Your task to perform on an android device: Open calendar and show me the third week of next month Image 0: 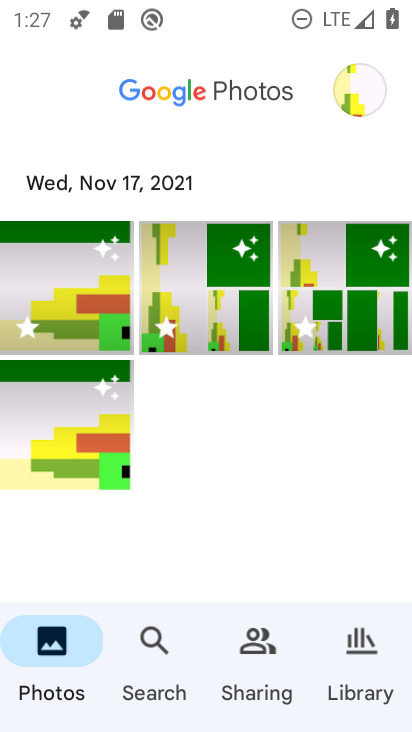
Step 0: press home button
Your task to perform on an android device: Open calendar and show me the third week of next month Image 1: 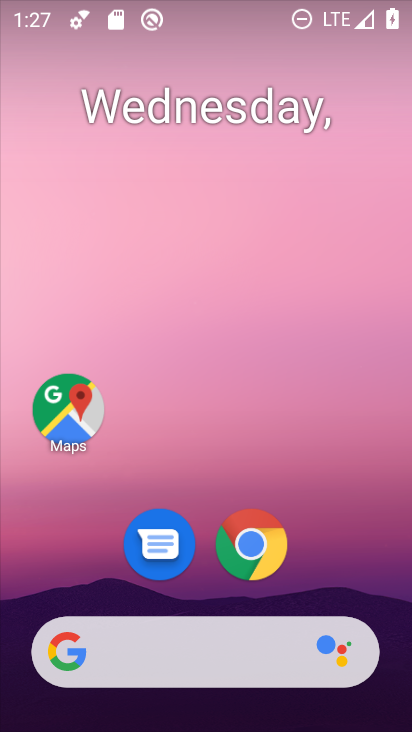
Step 1: drag from (342, 586) to (269, 42)
Your task to perform on an android device: Open calendar and show me the third week of next month Image 2: 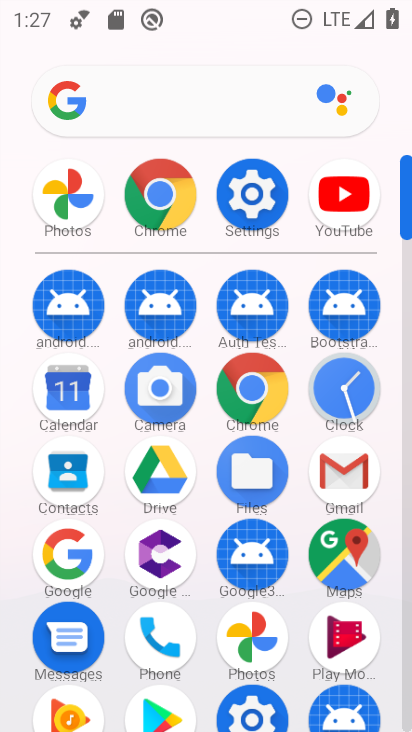
Step 2: click (67, 392)
Your task to perform on an android device: Open calendar and show me the third week of next month Image 3: 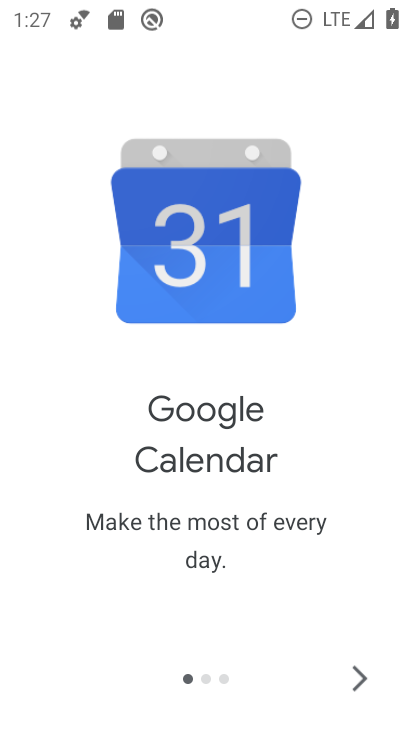
Step 3: click (354, 687)
Your task to perform on an android device: Open calendar and show me the third week of next month Image 4: 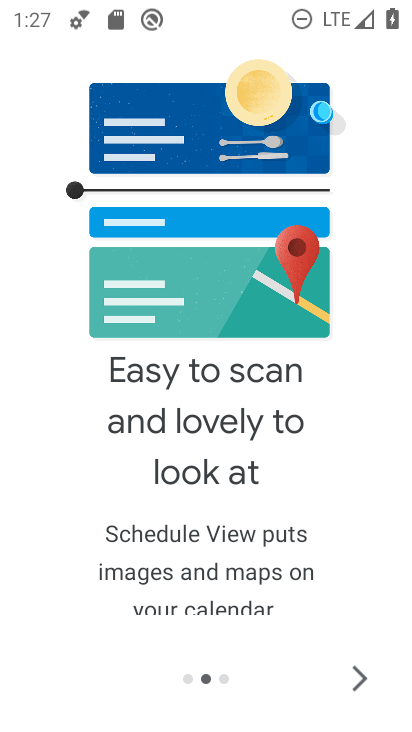
Step 4: click (354, 687)
Your task to perform on an android device: Open calendar and show me the third week of next month Image 5: 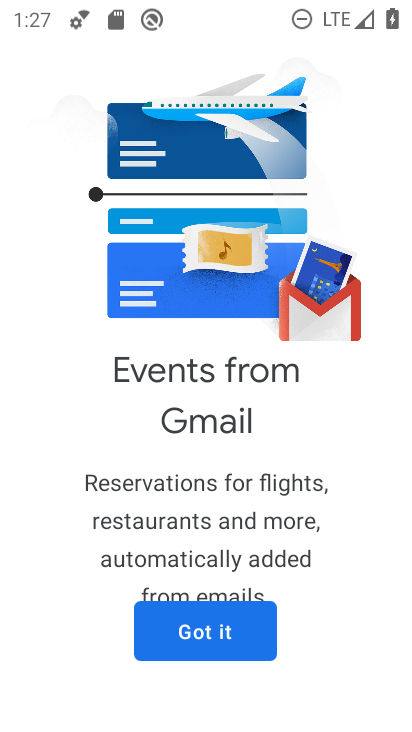
Step 5: click (228, 615)
Your task to perform on an android device: Open calendar and show me the third week of next month Image 6: 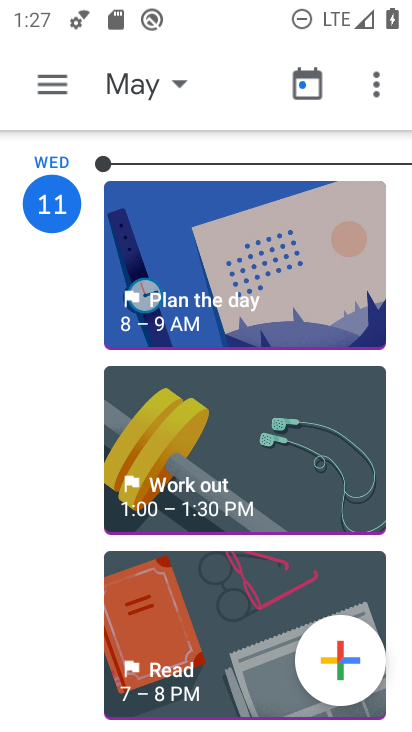
Step 6: click (135, 74)
Your task to perform on an android device: Open calendar and show me the third week of next month Image 7: 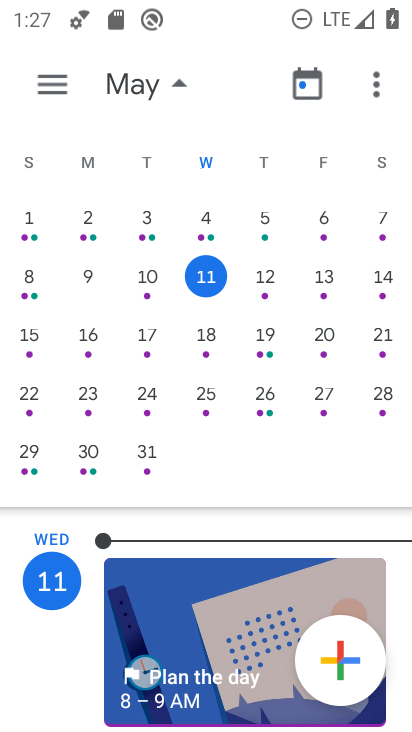
Step 7: drag from (335, 404) to (5, 403)
Your task to perform on an android device: Open calendar and show me the third week of next month Image 8: 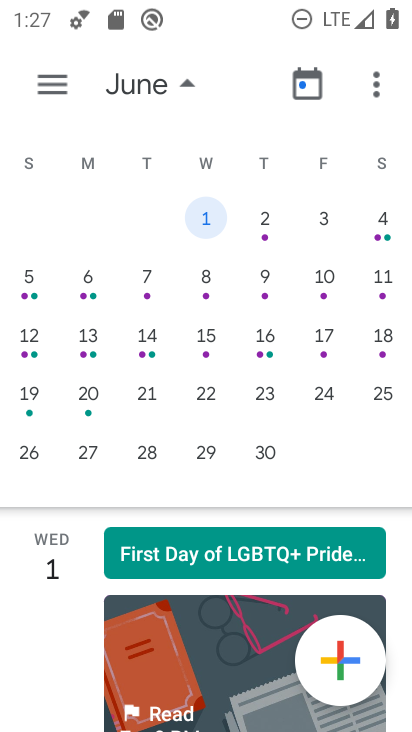
Step 8: click (65, 309)
Your task to perform on an android device: Open calendar and show me the third week of next month Image 9: 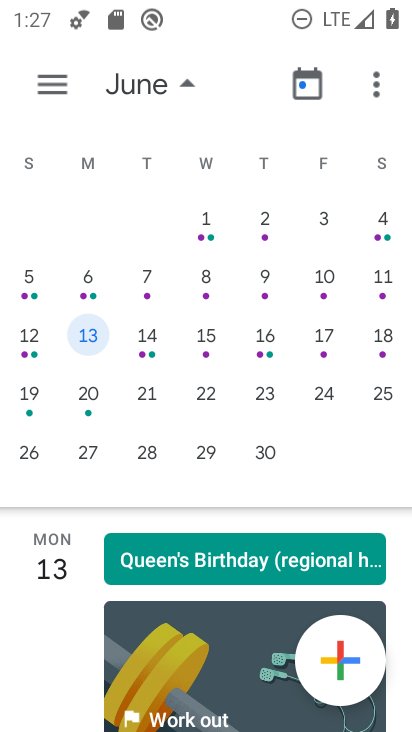
Step 9: click (25, 346)
Your task to perform on an android device: Open calendar and show me the third week of next month Image 10: 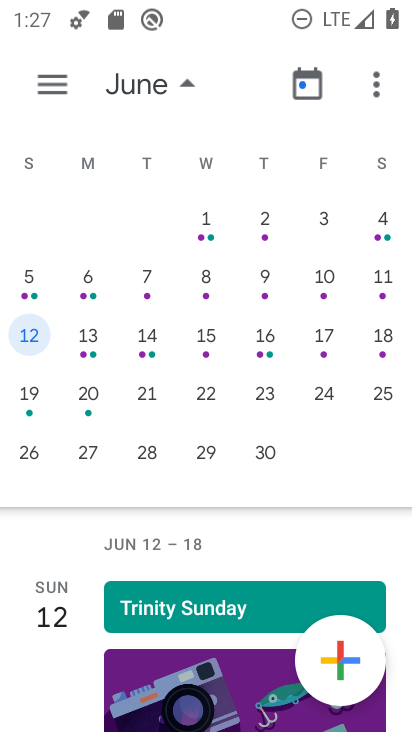
Step 10: task complete